Your task to perform on an android device: Open calendar and show me the first week of next month Image 0: 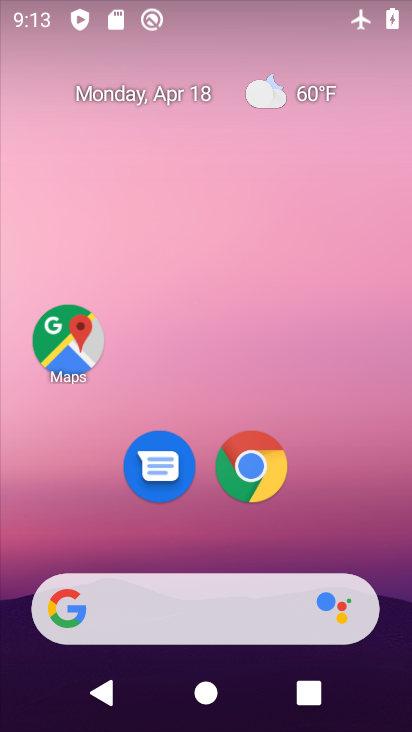
Step 0: click (246, 466)
Your task to perform on an android device: Open calendar and show me the first week of next month Image 1: 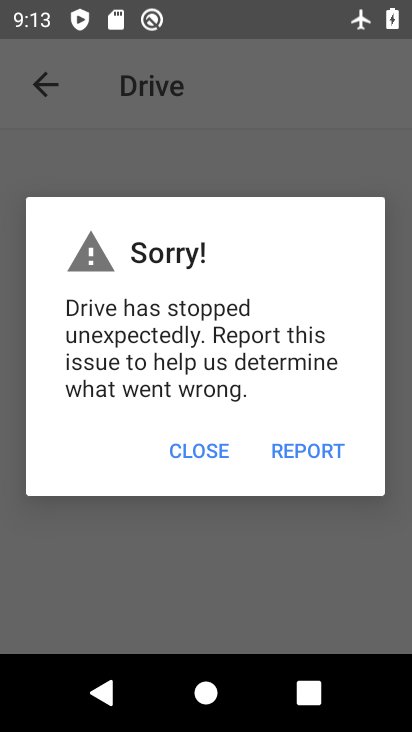
Step 1: press home button
Your task to perform on an android device: Open calendar and show me the first week of next month Image 2: 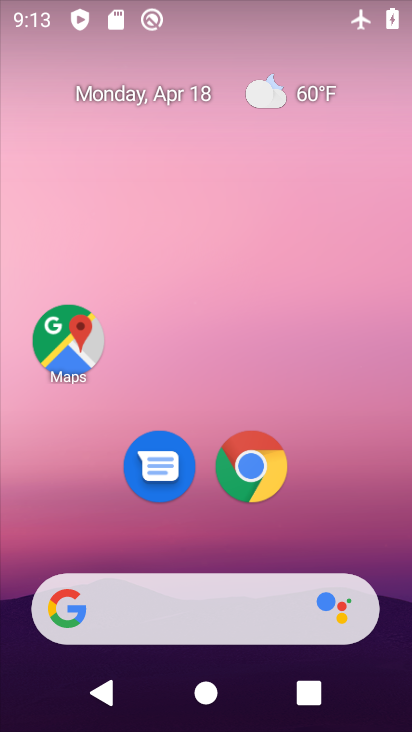
Step 2: drag from (209, 544) to (245, 0)
Your task to perform on an android device: Open calendar and show me the first week of next month Image 3: 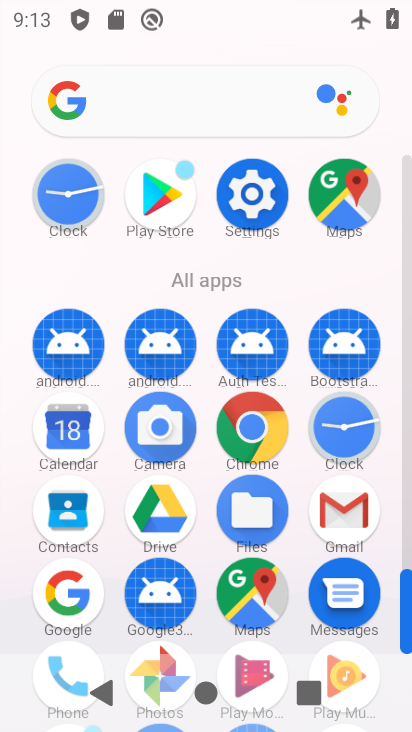
Step 3: click (67, 424)
Your task to perform on an android device: Open calendar and show me the first week of next month Image 4: 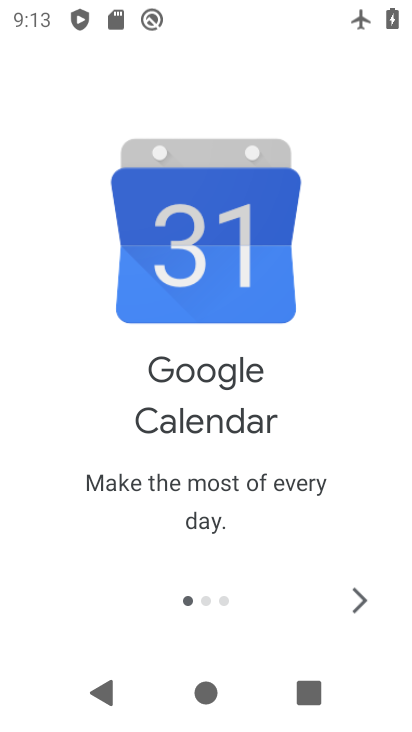
Step 4: click (365, 600)
Your task to perform on an android device: Open calendar and show me the first week of next month Image 5: 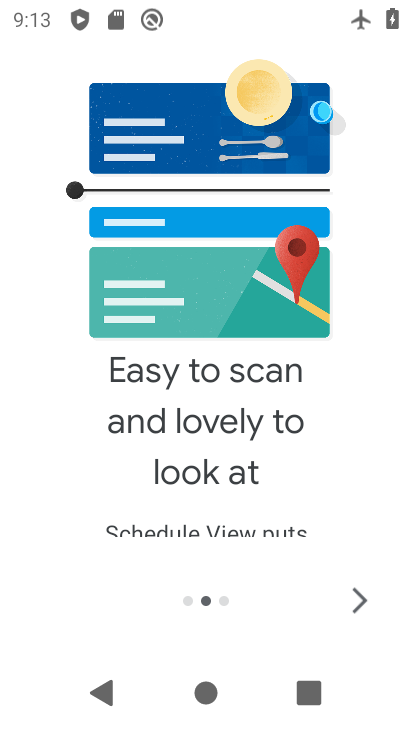
Step 5: click (365, 600)
Your task to perform on an android device: Open calendar and show me the first week of next month Image 6: 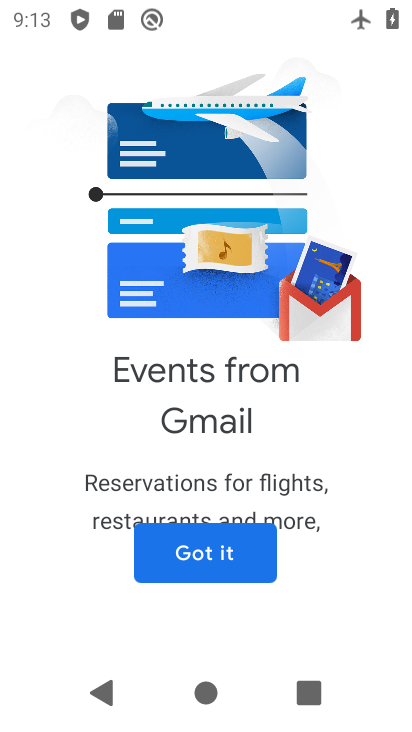
Step 6: click (201, 551)
Your task to perform on an android device: Open calendar and show me the first week of next month Image 7: 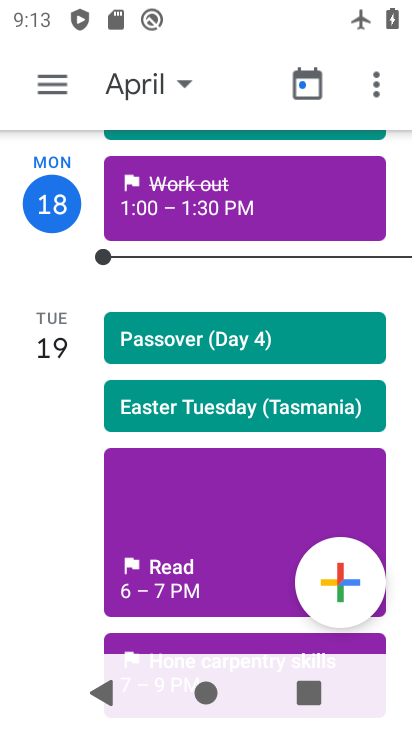
Step 7: click (45, 88)
Your task to perform on an android device: Open calendar and show me the first week of next month Image 8: 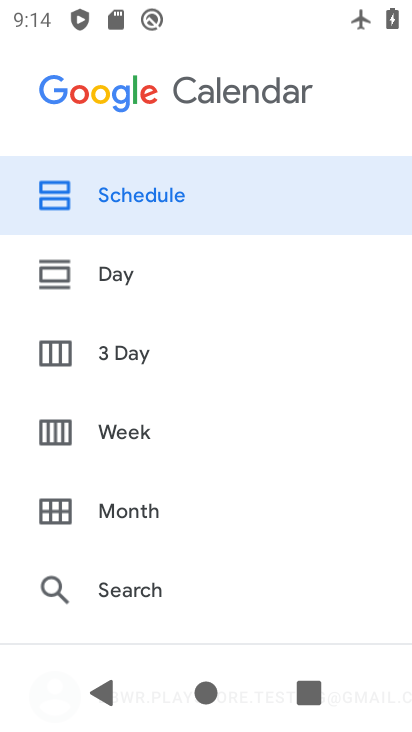
Step 8: click (146, 431)
Your task to perform on an android device: Open calendar and show me the first week of next month Image 9: 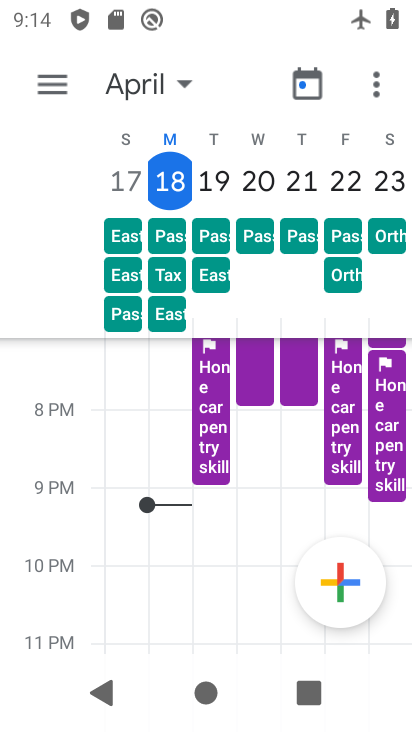
Step 9: click (190, 83)
Your task to perform on an android device: Open calendar and show me the first week of next month Image 10: 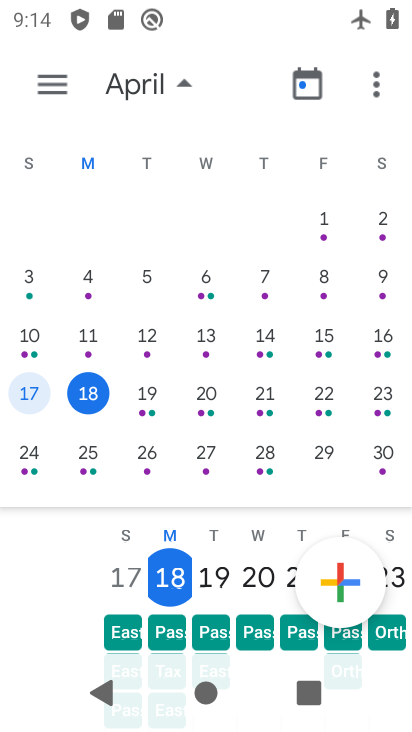
Step 10: task complete